Your task to perform on an android device: Open battery settings Image 0: 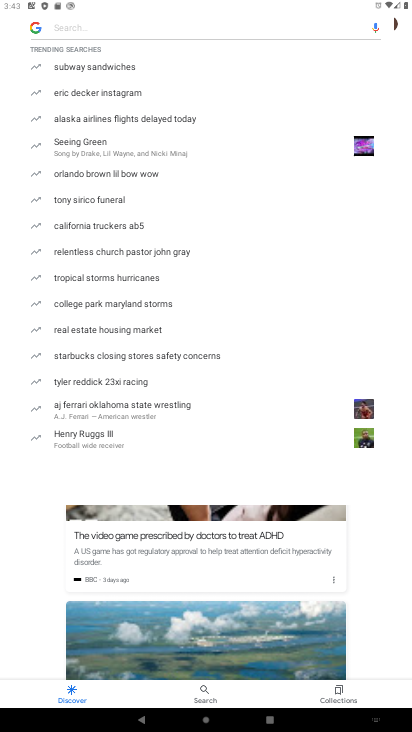
Step 0: press home button
Your task to perform on an android device: Open battery settings Image 1: 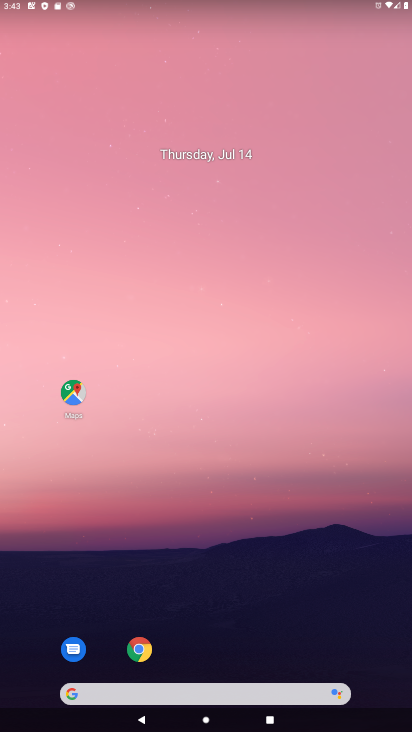
Step 1: drag from (203, 650) to (408, 489)
Your task to perform on an android device: Open battery settings Image 2: 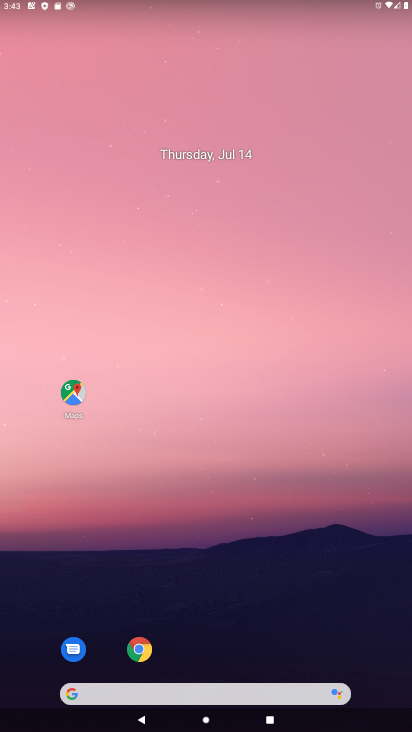
Step 2: drag from (193, 673) to (262, 95)
Your task to perform on an android device: Open battery settings Image 3: 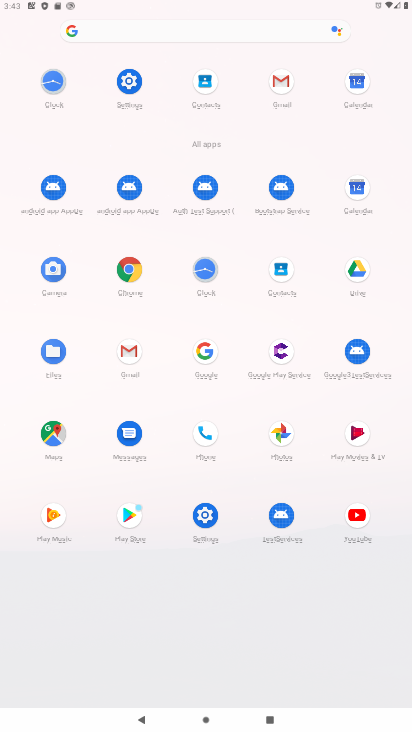
Step 3: click (215, 515)
Your task to perform on an android device: Open battery settings Image 4: 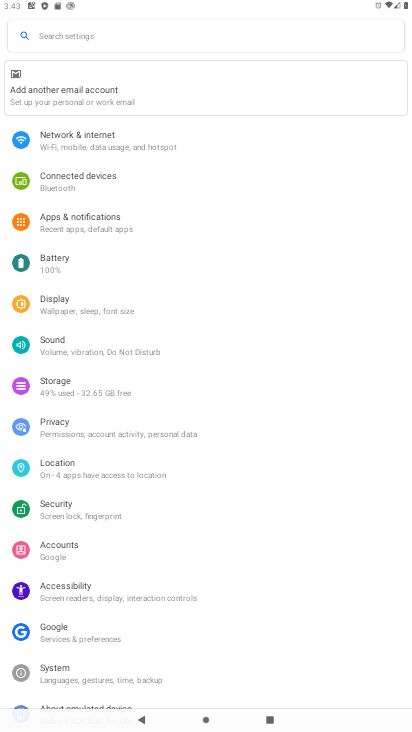
Step 4: click (64, 267)
Your task to perform on an android device: Open battery settings Image 5: 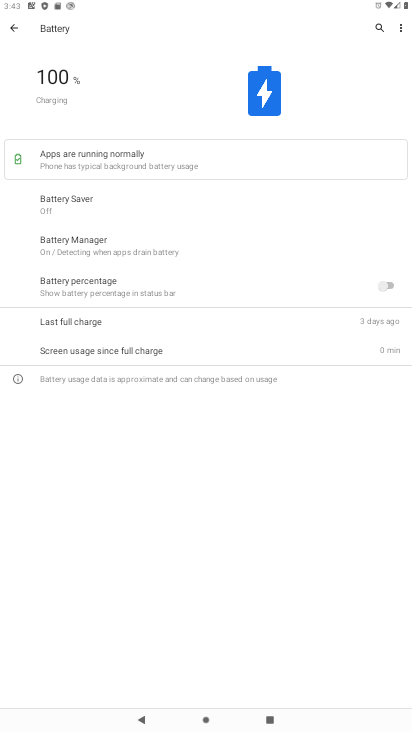
Step 5: task complete